Your task to perform on an android device: Turn off the flashlight Image 0: 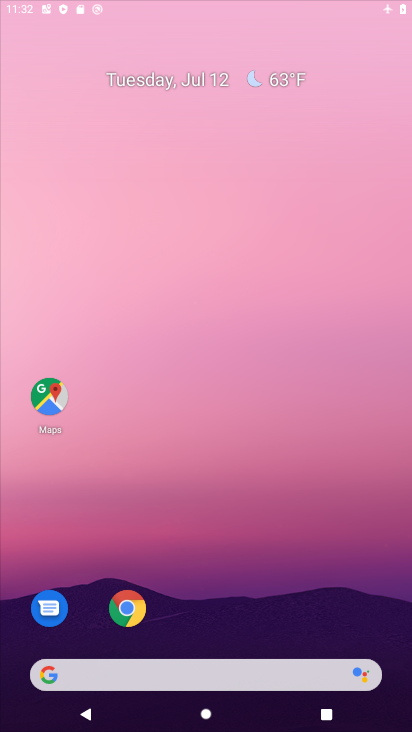
Step 0: press home button
Your task to perform on an android device: Turn off the flashlight Image 1: 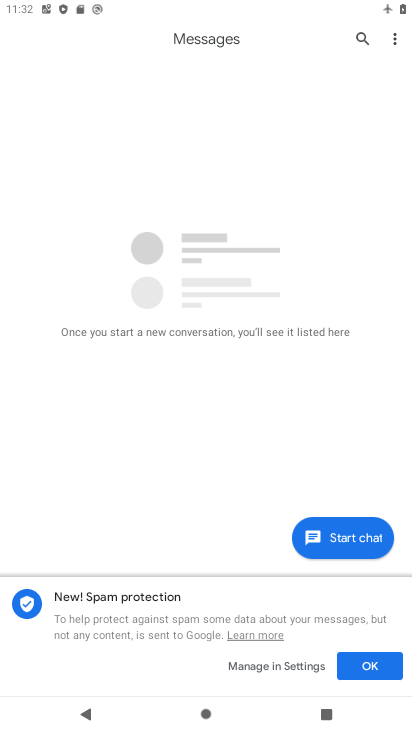
Step 1: drag from (222, 363) to (232, 113)
Your task to perform on an android device: Turn off the flashlight Image 2: 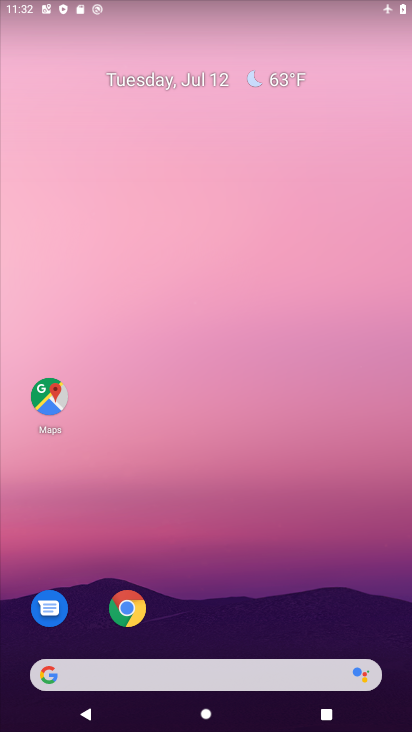
Step 2: drag from (239, 643) to (252, 168)
Your task to perform on an android device: Turn off the flashlight Image 3: 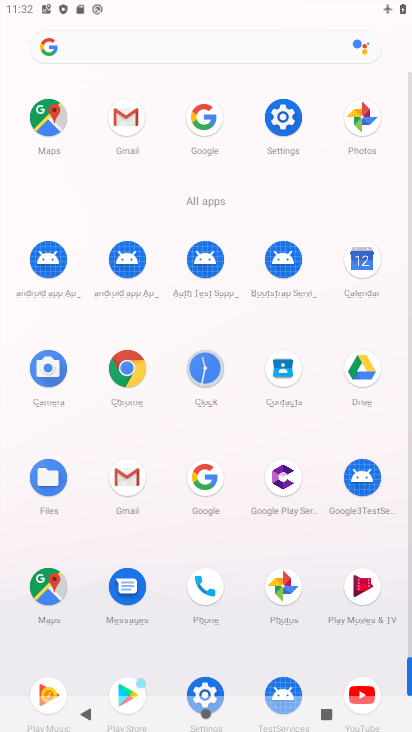
Step 3: click (278, 117)
Your task to perform on an android device: Turn off the flashlight Image 4: 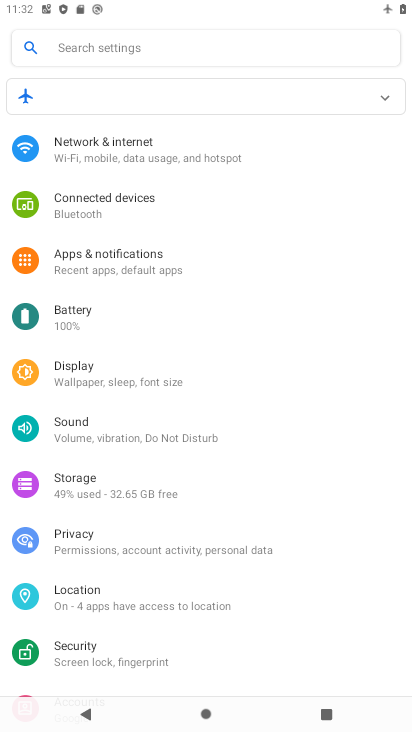
Step 4: click (186, 49)
Your task to perform on an android device: Turn off the flashlight Image 5: 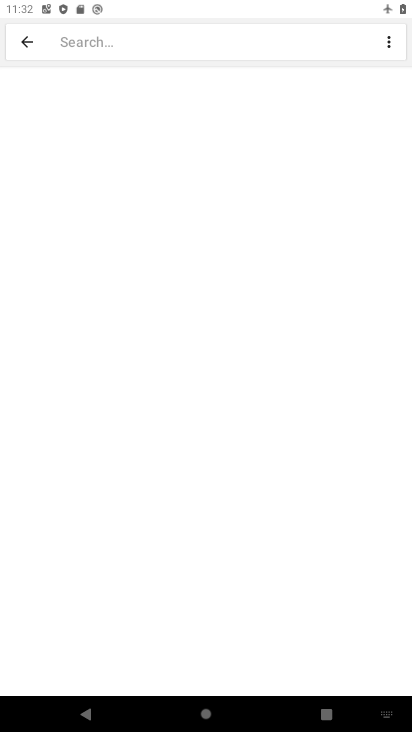
Step 5: type "flash"
Your task to perform on an android device: Turn off the flashlight Image 6: 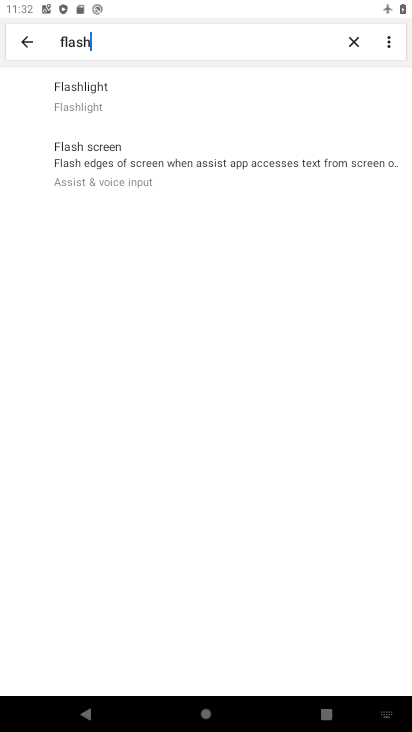
Step 6: task complete